Your task to perform on an android device: open chrome and create a bookmark for the current page Image 0: 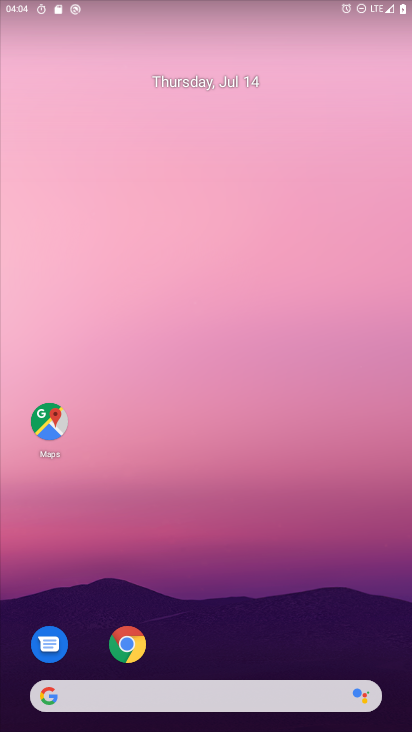
Step 0: drag from (235, 652) to (196, 123)
Your task to perform on an android device: open chrome and create a bookmark for the current page Image 1: 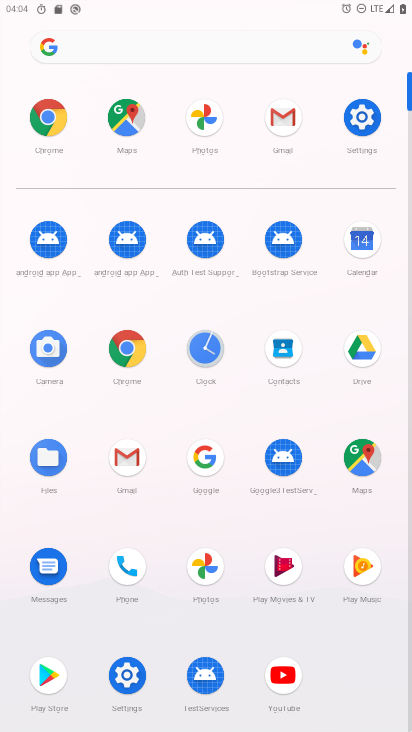
Step 1: click (126, 345)
Your task to perform on an android device: open chrome and create a bookmark for the current page Image 2: 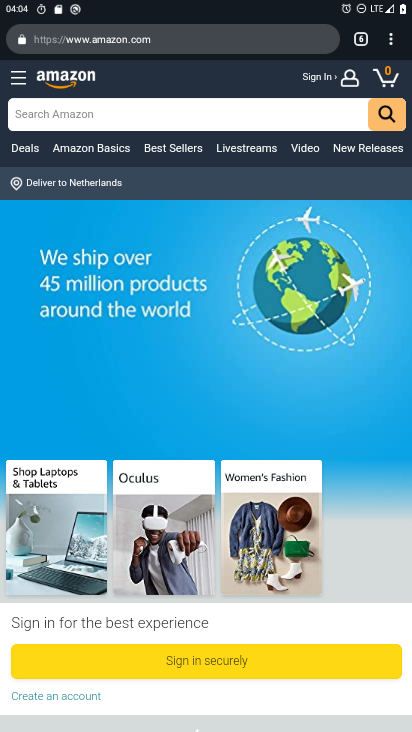
Step 2: task complete